Your task to perform on an android device: check data usage Image 0: 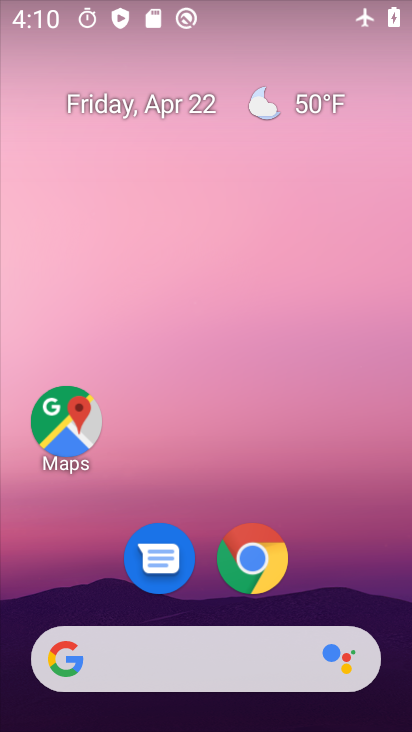
Step 0: drag from (318, 575) to (190, 174)
Your task to perform on an android device: check data usage Image 1: 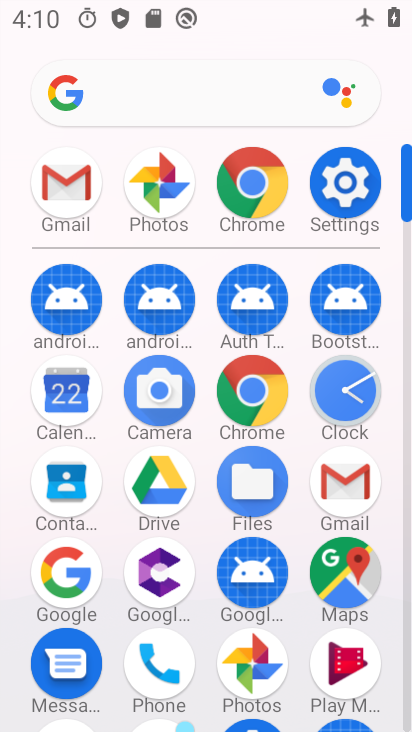
Step 1: click (337, 199)
Your task to perform on an android device: check data usage Image 2: 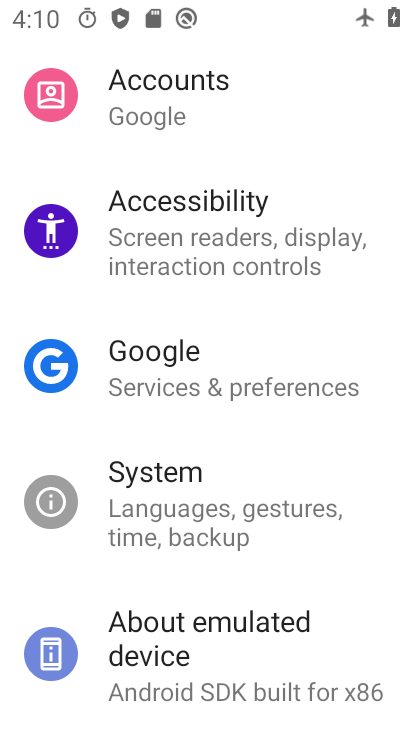
Step 2: drag from (239, 171) to (229, 568)
Your task to perform on an android device: check data usage Image 3: 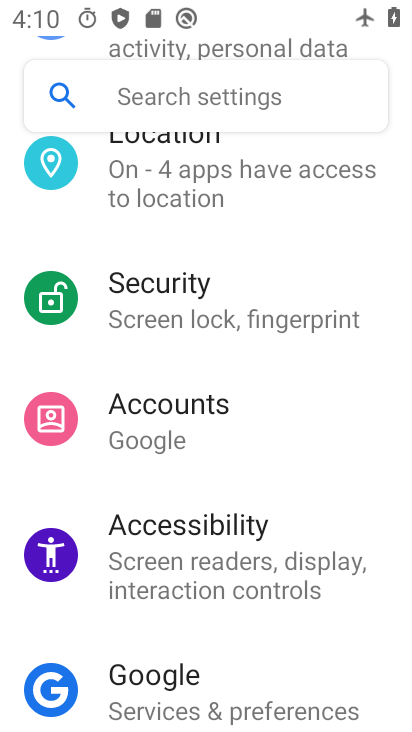
Step 3: drag from (254, 284) to (191, 618)
Your task to perform on an android device: check data usage Image 4: 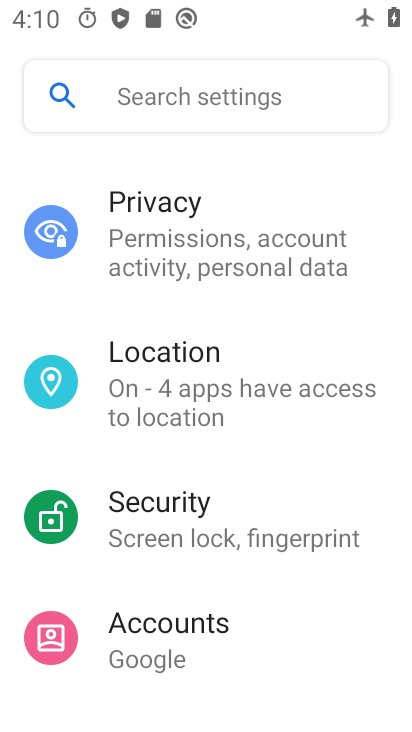
Step 4: drag from (224, 309) to (191, 622)
Your task to perform on an android device: check data usage Image 5: 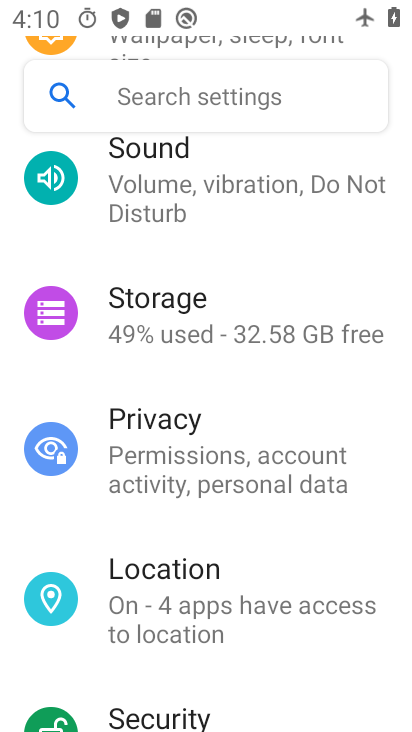
Step 5: drag from (242, 262) to (229, 628)
Your task to perform on an android device: check data usage Image 6: 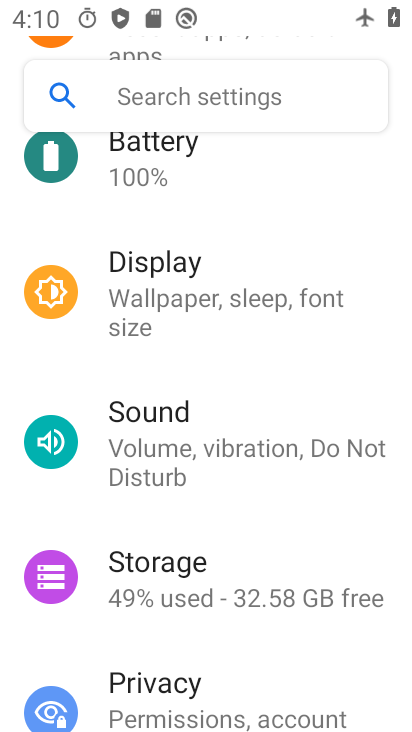
Step 6: drag from (258, 331) to (237, 676)
Your task to perform on an android device: check data usage Image 7: 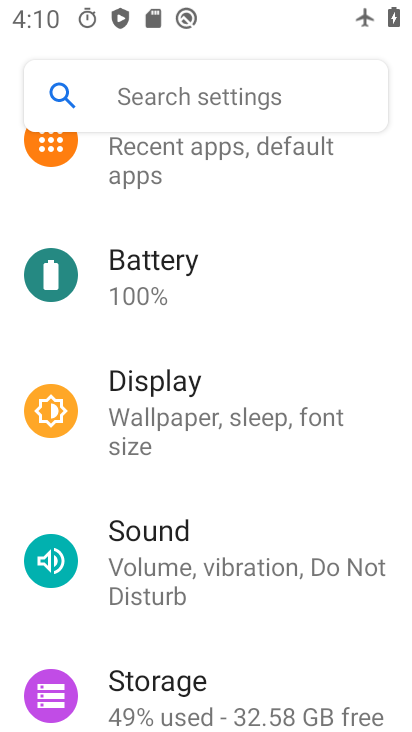
Step 7: drag from (274, 357) to (243, 652)
Your task to perform on an android device: check data usage Image 8: 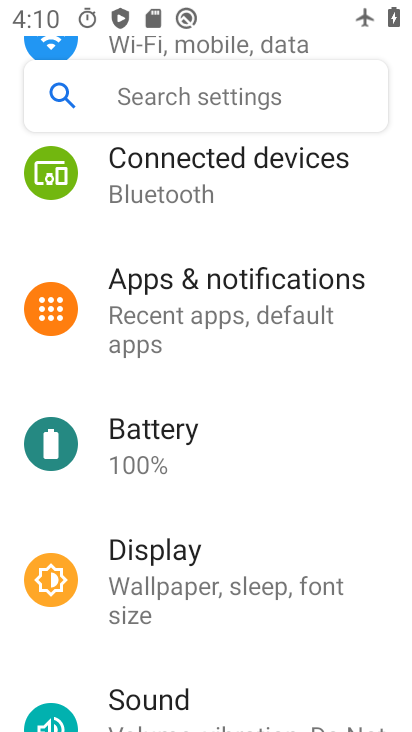
Step 8: drag from (225, 403) to (215, 731)
Your task to perform on an android device: check data usage Image 9: 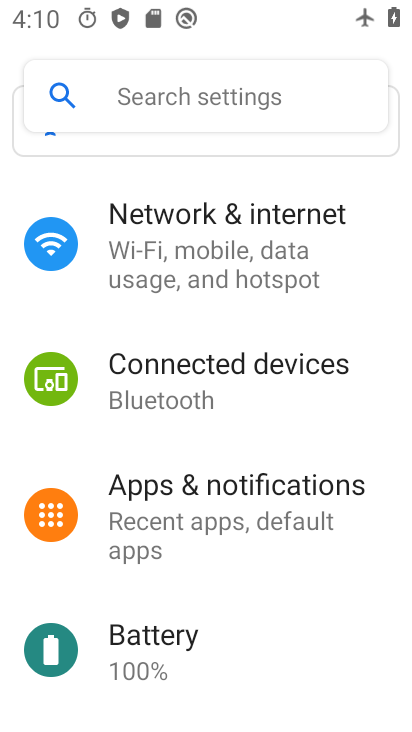
Step 9: click (191, 269)
Your task to perform on an android device: check data usage Image 10: 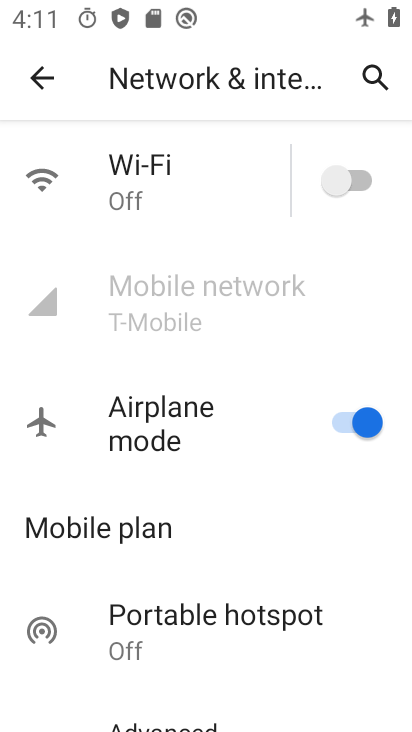
Step 10: drag from (220, 571) to (241, 345)
Your task to perform on an android device: check data usage Image 11: 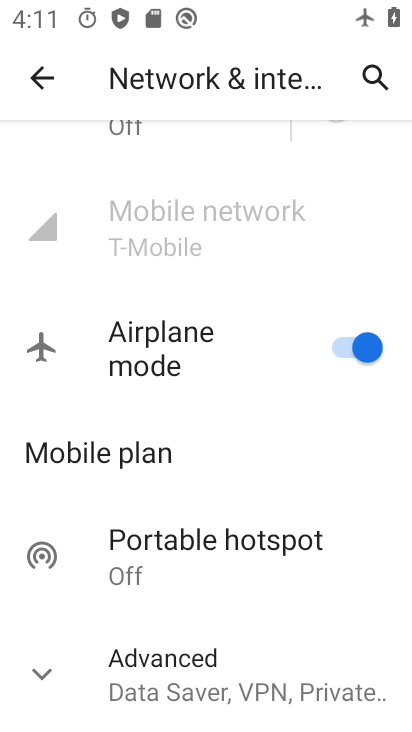
Step 11: drag from (251, 613) to (253, 357)
Your task to perform on an android device: check data usage Image 12: 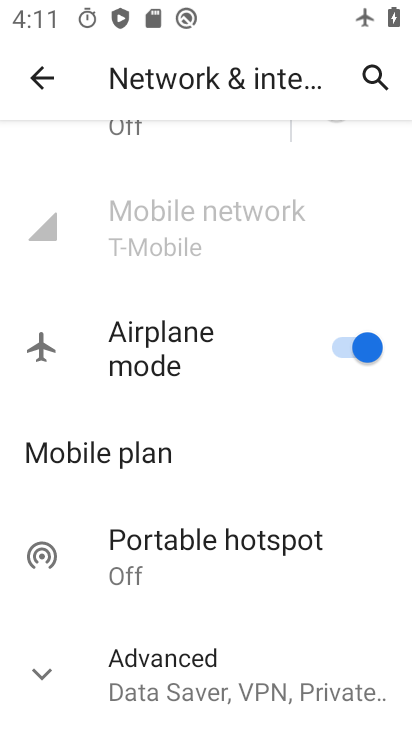
Step 12: drag from (265, 649) to (234, 388)
Your task to perform on an android device: check data usage Image 13: 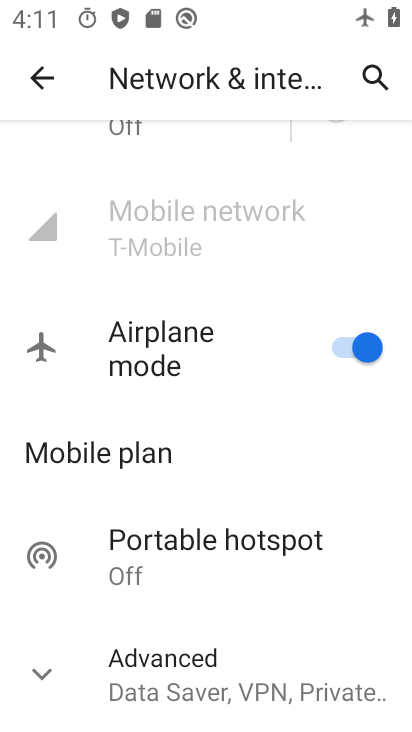
Step 13: click (346, 347)
Your task to perform on an android device: check data usage Image 14: 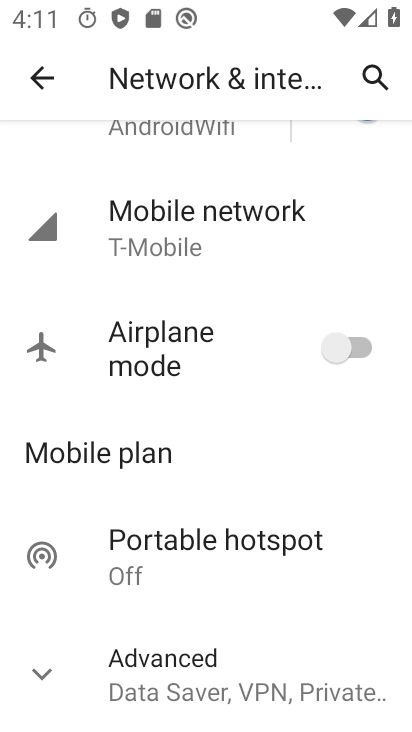
Step 14: click (155, 366)
Your task to perform on an android device: check data usage Image 15: 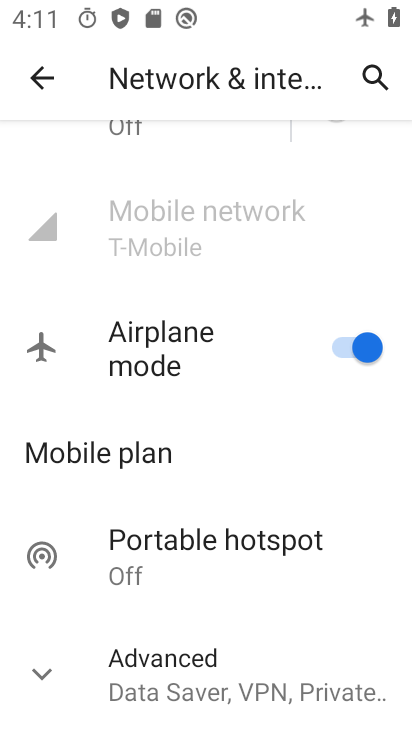
Step 15: click (157, 365)
Your task to perform on an android device: check data usage Image 16: 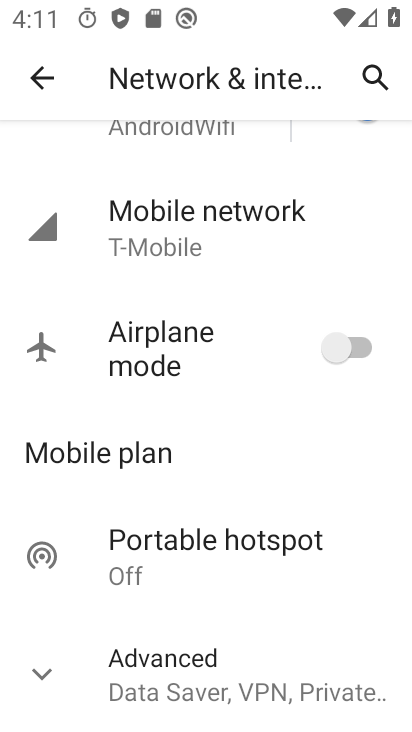
Step 16: click (150, 268)
Your task to perform on an android device: check data usage Image 17: 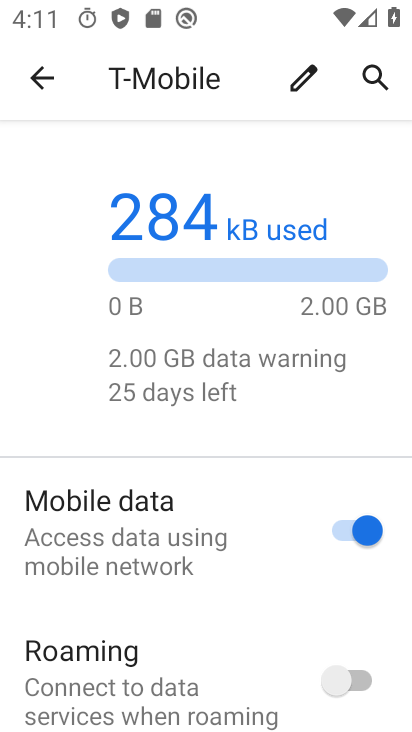
Step 17: task complete